Your task to perform on an android device: What's the weather going to be this weekend? Image 0: 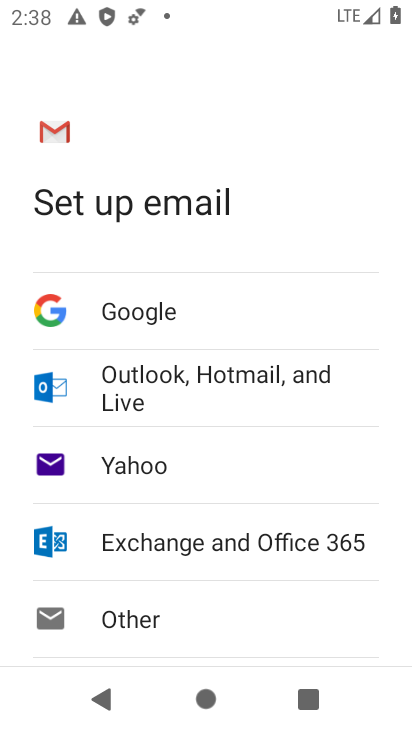
Step 0: press home button
Your task to perform on an android device: What's the weather going to be this weekend? Image 1: 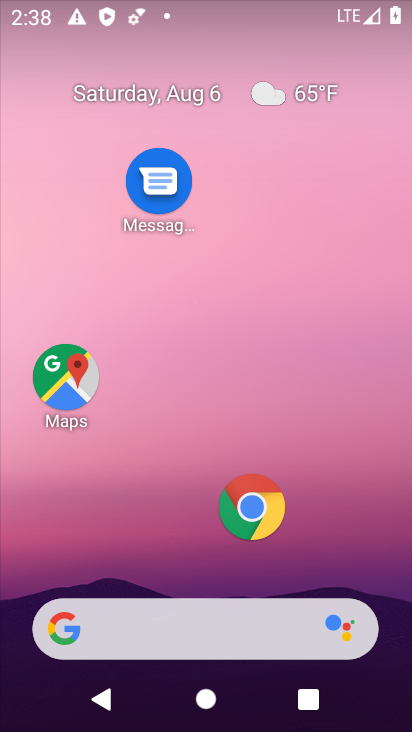
Step 1: click (187, 626)
Your task to perform on an android device: What's the weather going to be this weekend? Image 2: 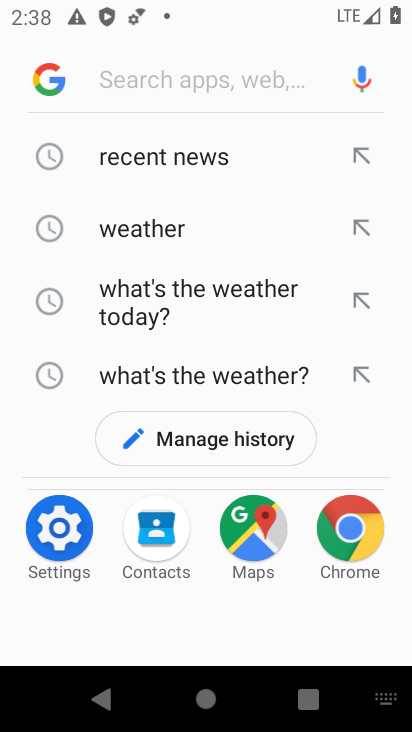
Step 2: click (167, 237)
Your task to perform on an android device: What's the weather going to be this weekend? Image 3: 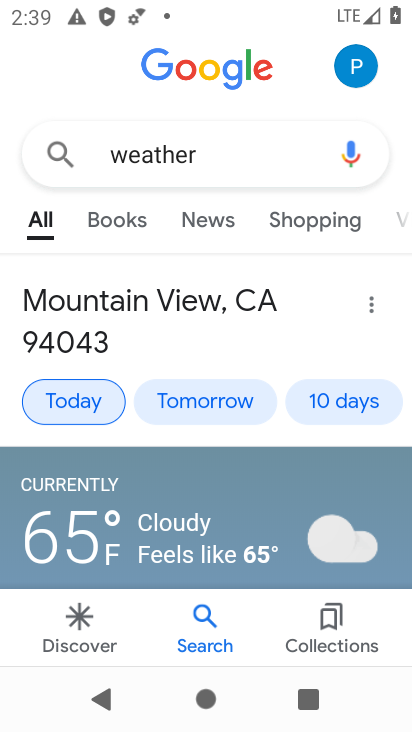
Step 3: click (317, 393)
Your task to perform on an android device: What's the weather going to be this weekend? Image 4: 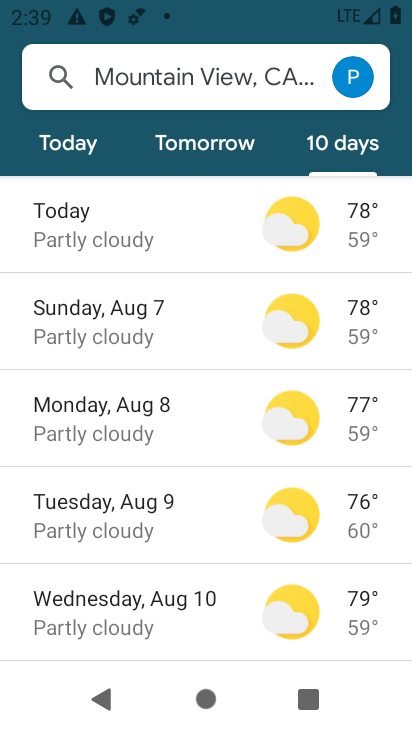
Step 4: task complete